Your task to perform on an android device: Open Google Maps Image 0: 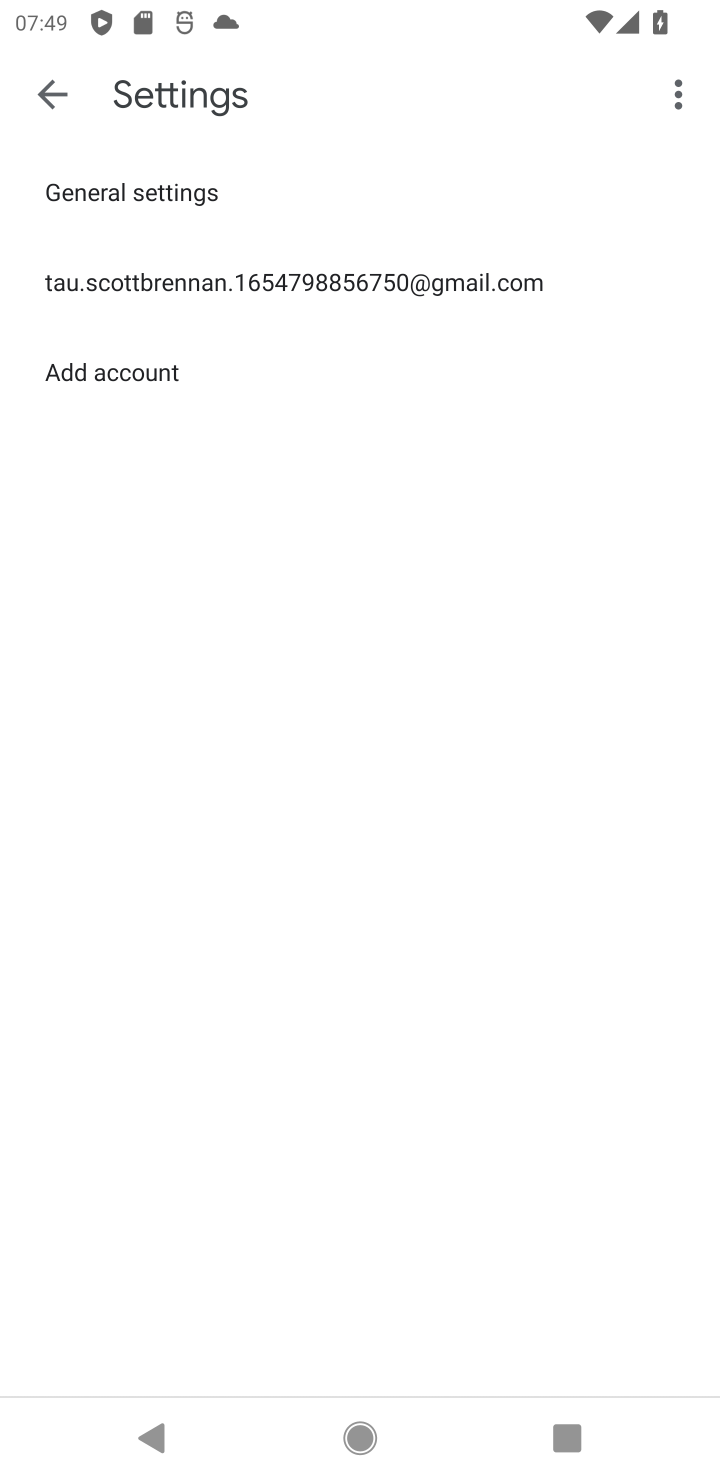
Step 0: press home button
Your task to perform on an android device: Open Google Maps Image 1: 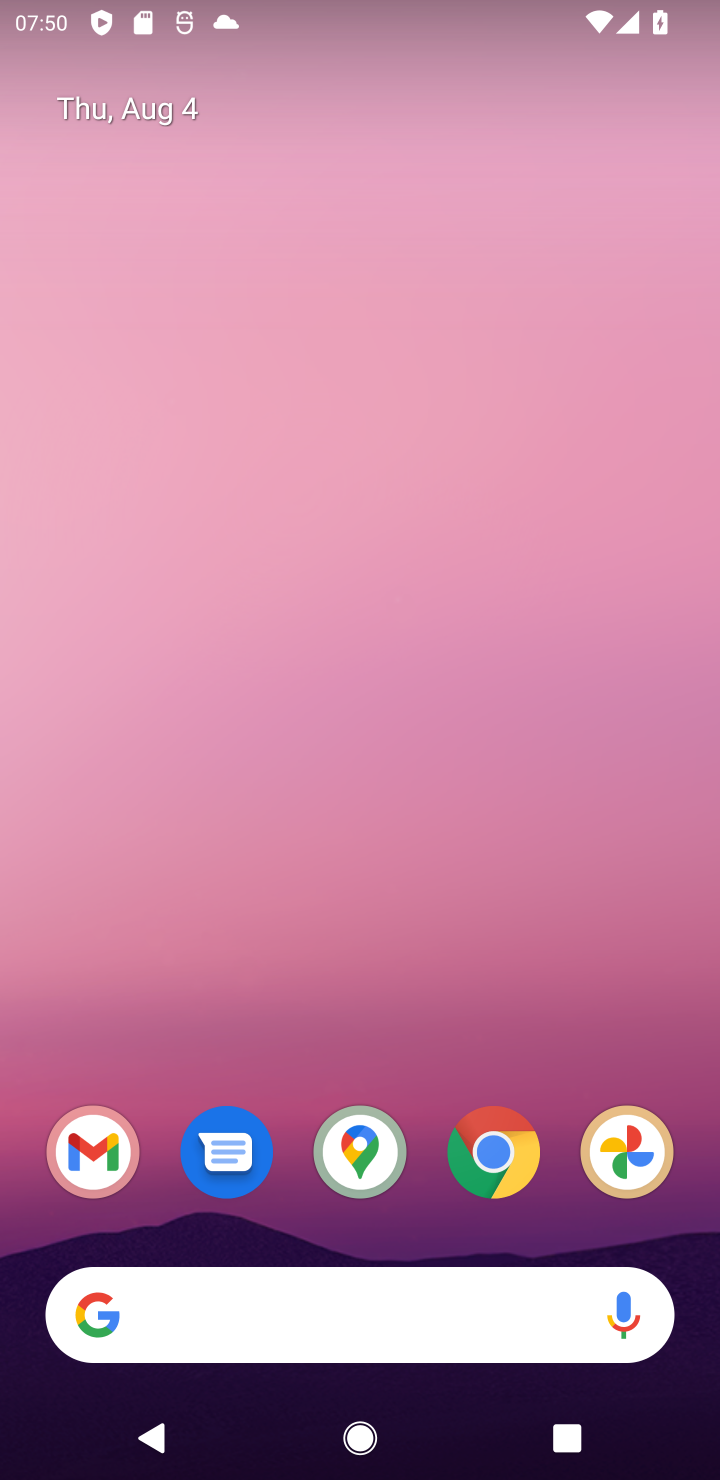
Step 1: click (370, 1164)
Your task to perform on an android device: Open Google Maps Image 2: 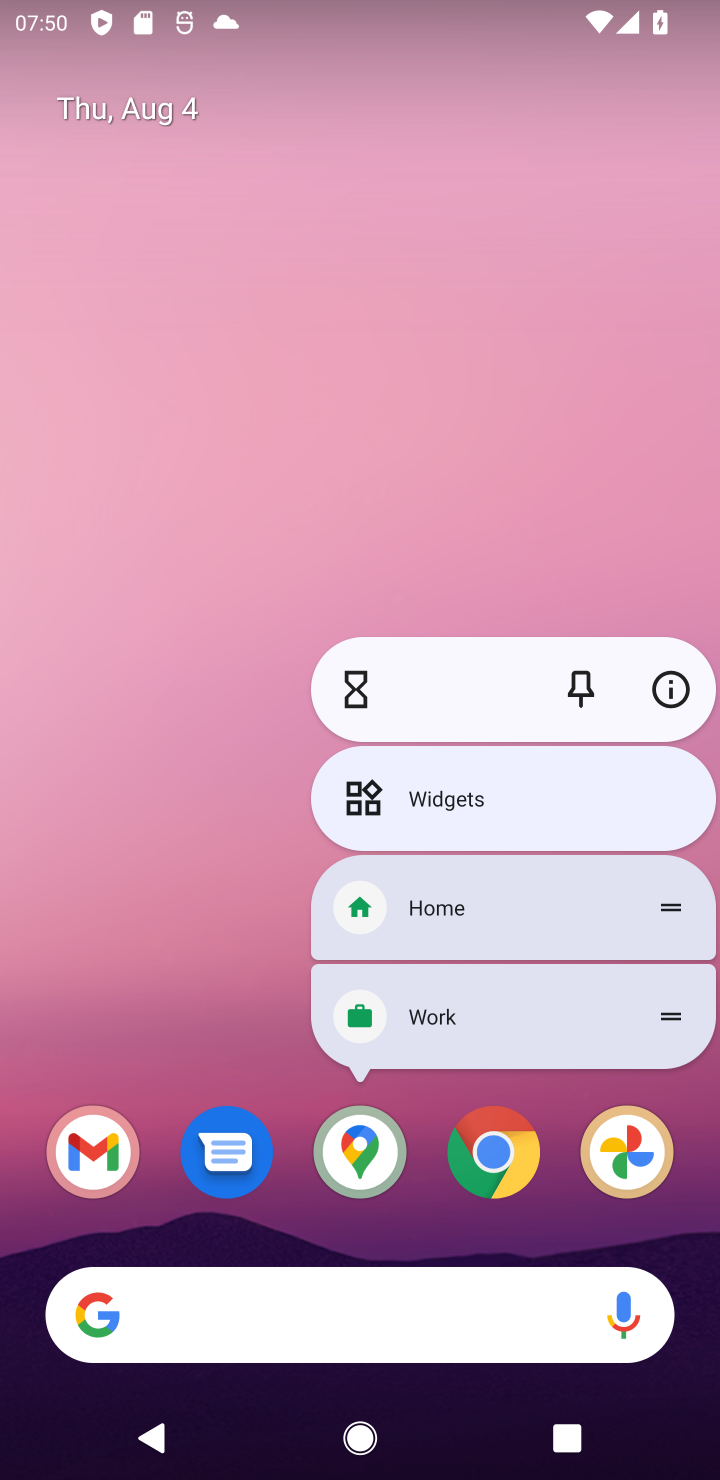
Step 2: click (336, 1146)
Your task to perform on an android device: Open Google Maps Image 3: 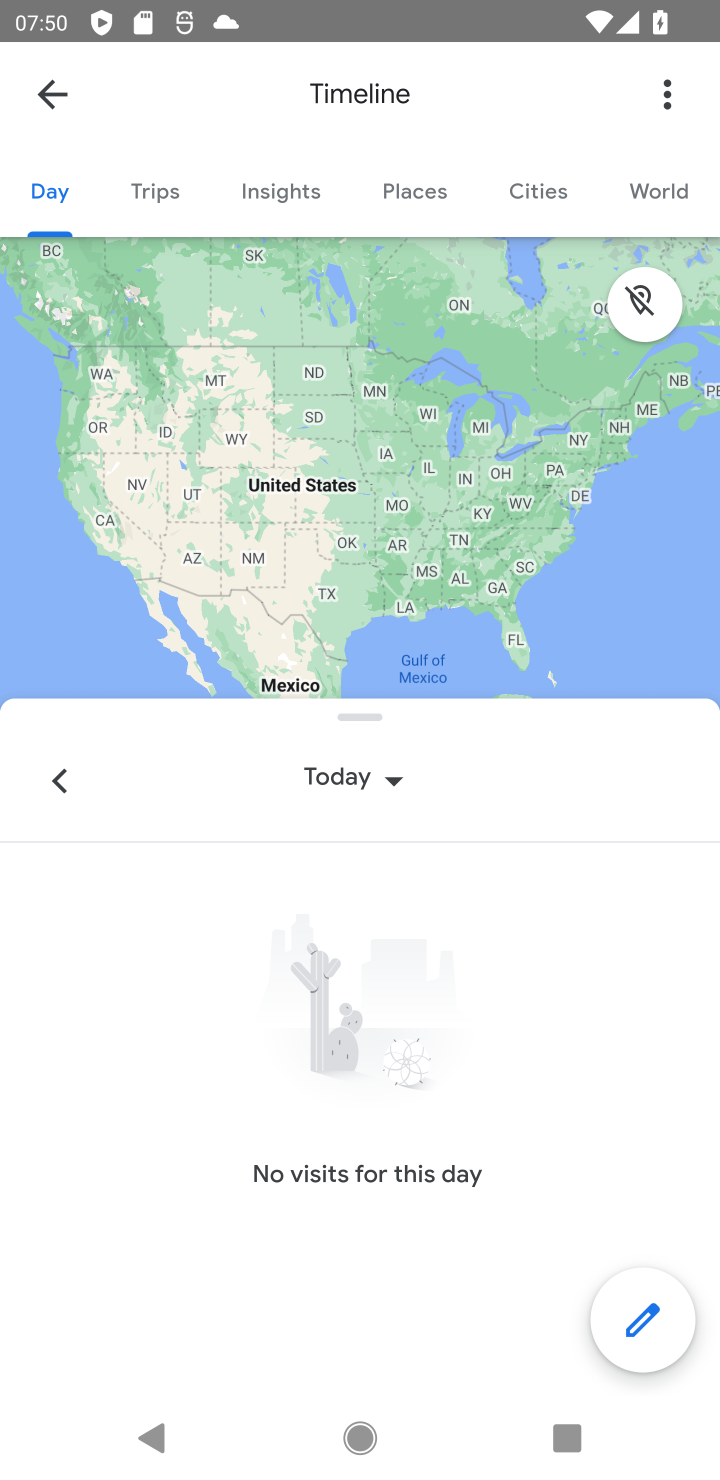
Step 3: click (50, 102)
Your task to perform on an android device: Open Google Maps Image 4: 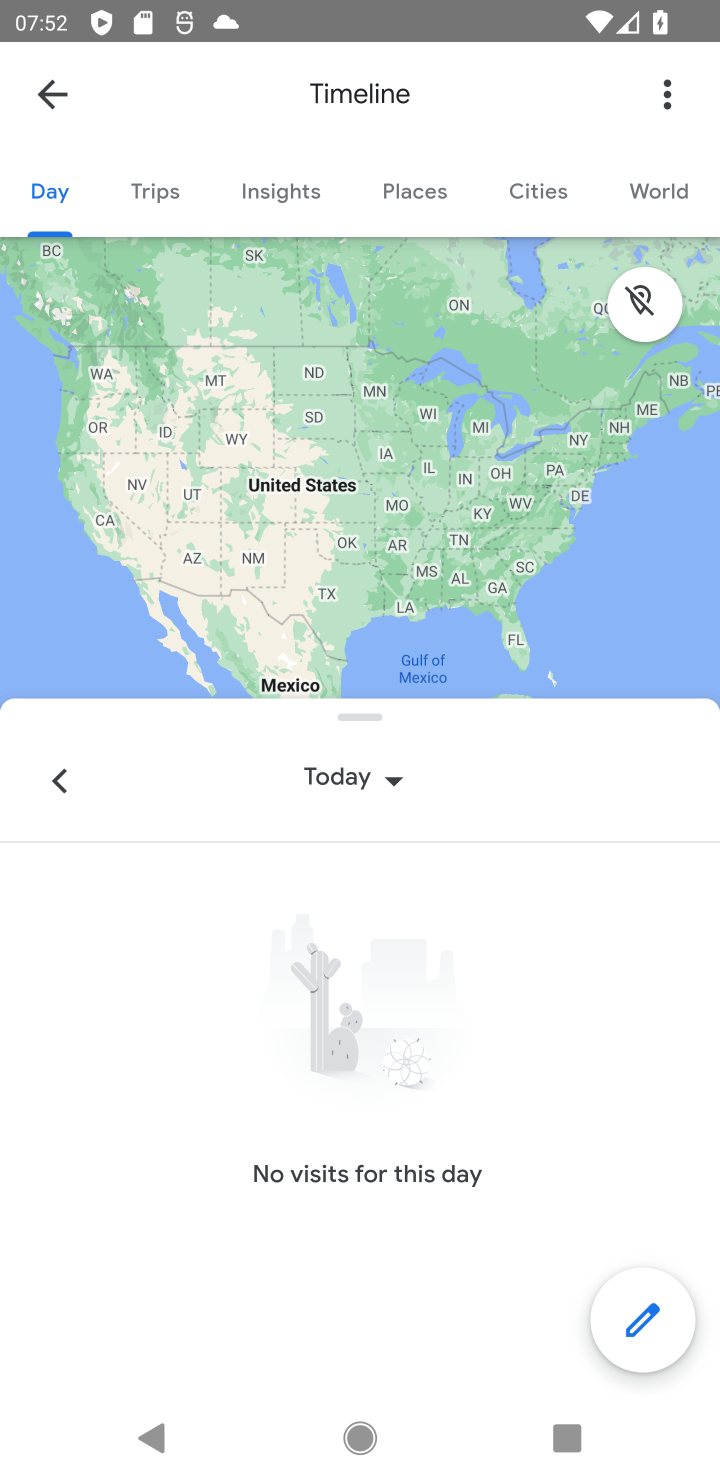
Step 4: task complete